Your task to perform on an android device: Go to wifi settings Image 0: 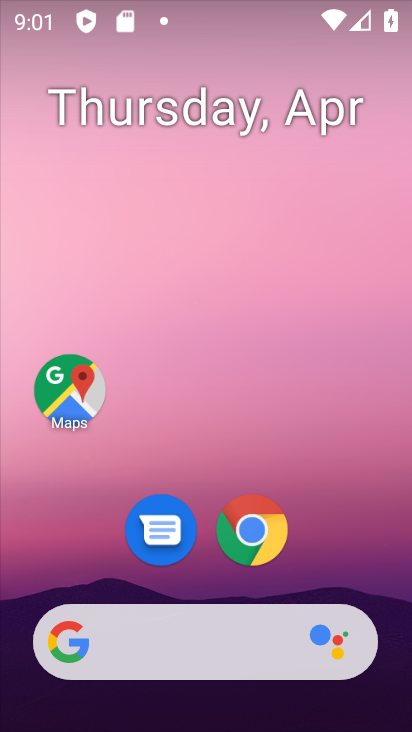
Step 0: drag from (345, 573) to (275, 23)
Your task to perform on an android device: Go to wifi settings Image 1: 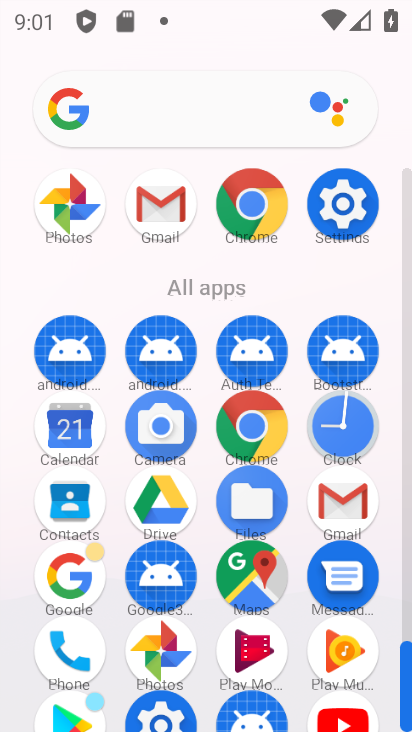
Step 1: click (334, 186)
Your task to perform on an android device: Go to wifi settings Image 2: 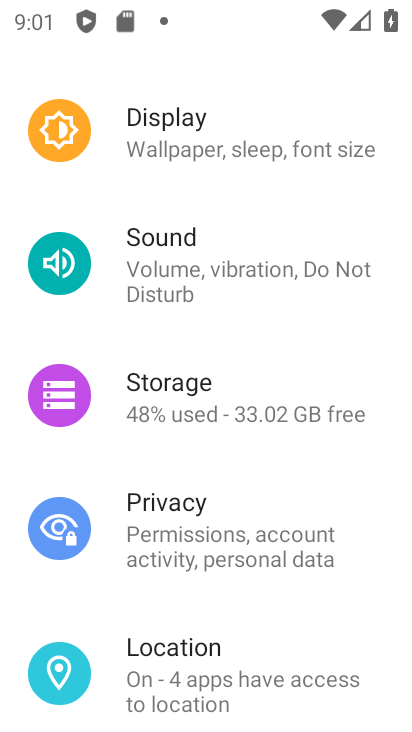
Step 2: drag from (268, 159) to (293, 591)
Your task to perform on an android device: Go to wifi settings Image 3: 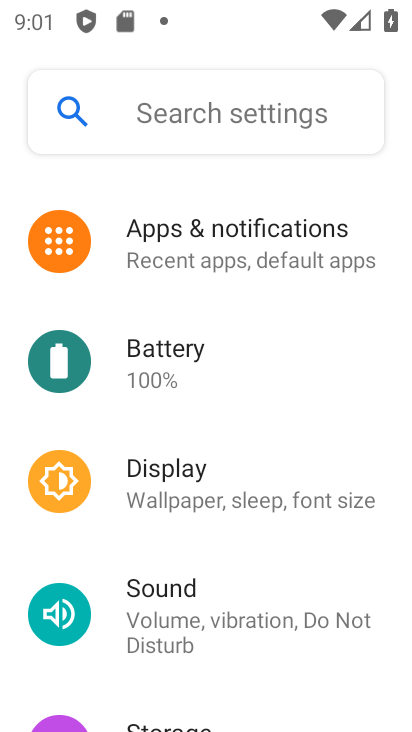
Step 3: drag from (259, 235) to (301, 634)
Your task to perform on an android device: Go to wifi settings Image 4: 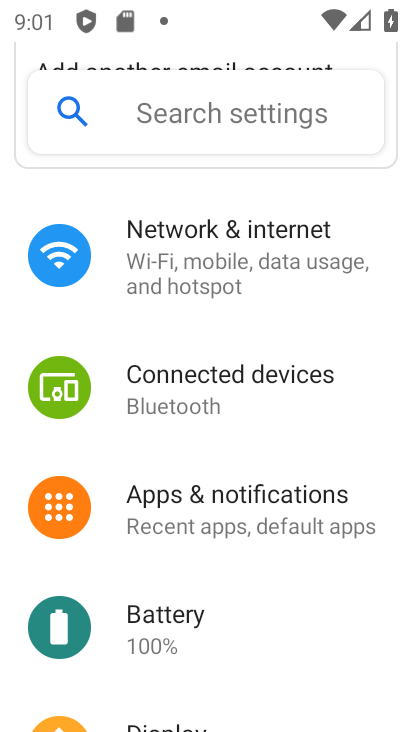
Step 4: click (197, 261)
Your task to perform on an android device: Go to wifi settings Image 5: 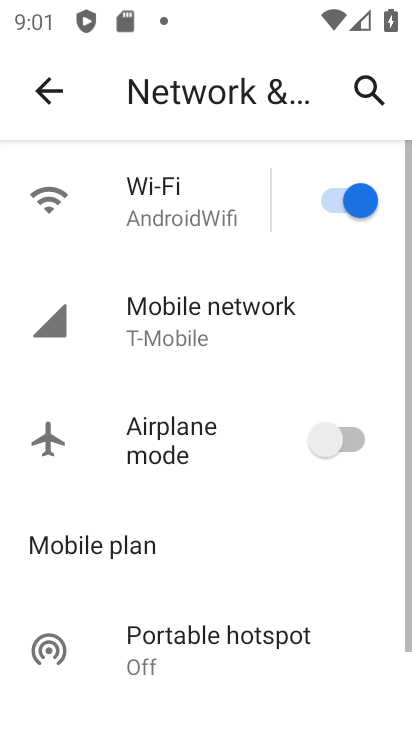
Step 5: click (165, 218)
Your task to perform on an android device: Go to wifi settings Image 6: 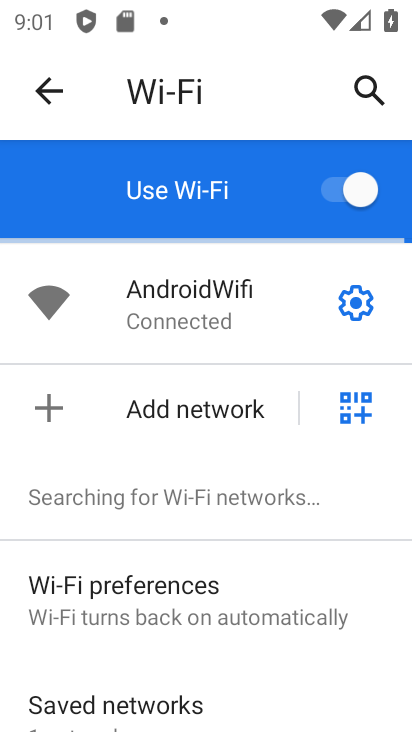
Step 6: task complete